Your task to perform on an android device: turn on improve location accuracy Image 0: 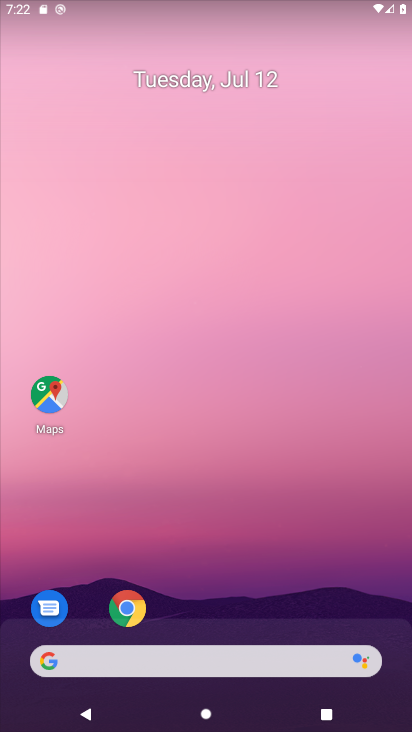
Step 0: drag from (229, 669) to (357, 172)
Your task to perform on an android device: turn on improve location accuracy Image 1: 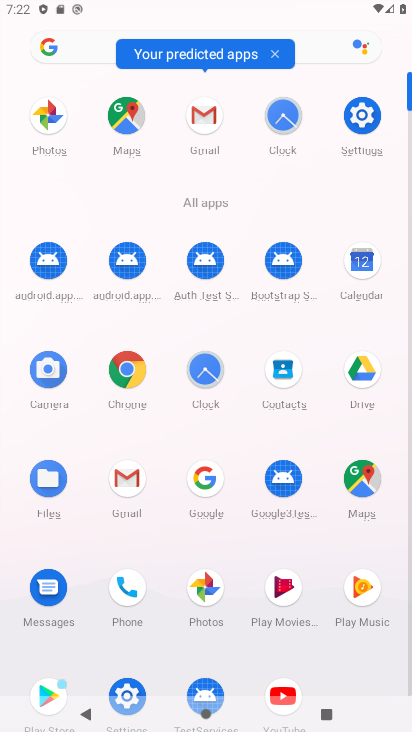
Step 1: click (358, 118)
Your task to perform on an android device: turn on improve location accuracy Image 2: 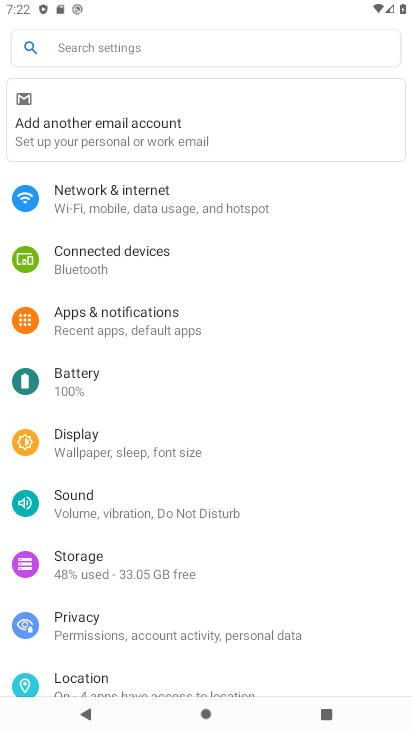
Step 2: drag from (125, 651) to (324, 130)
Your task to perform on an android device: turn on improve location accuracy Image 3: 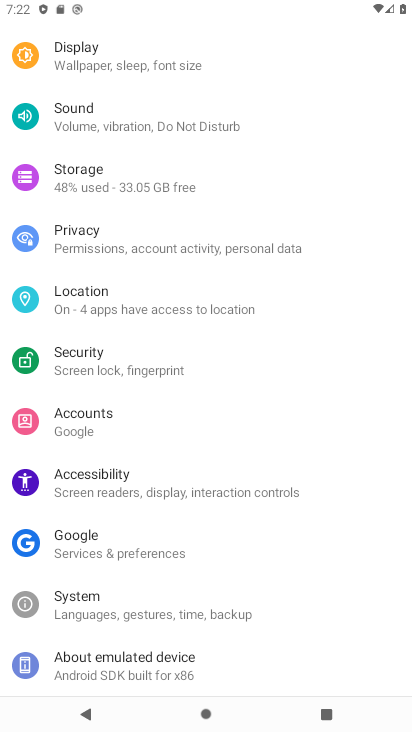
Step 3: click (118, 303)
Your task to perform on an android device: turn on improve location accuracy Image 4: 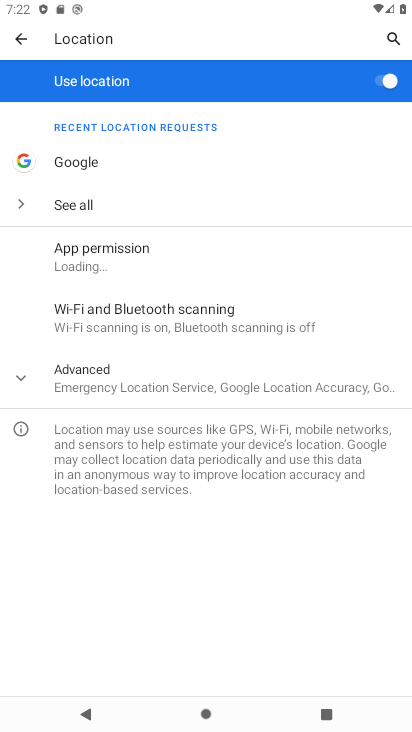
Step 4: click (76, 368)
Your task to perform on an android device: turn on improve location accuracy Image 5: 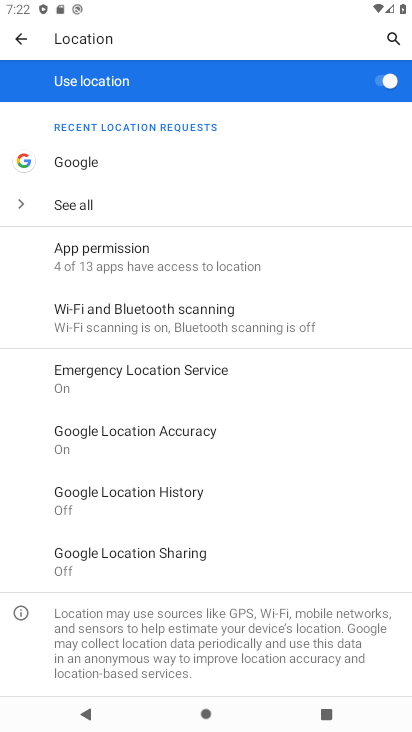
Step 5: click (156, 428)
Your task to perform on an android device: turn on improve location accuracy Image 6: 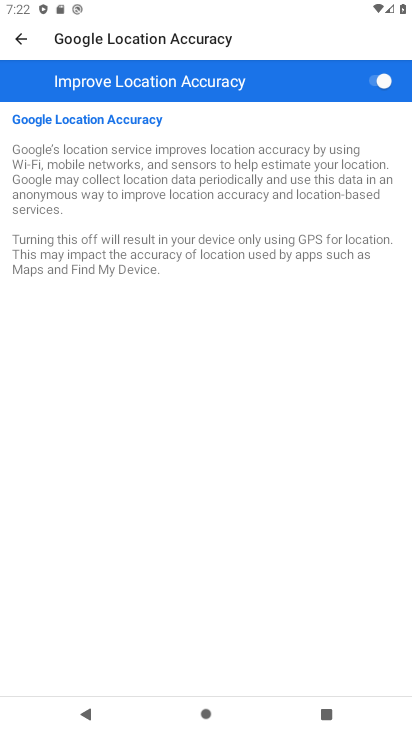
Step 6: task complete